Your task to perform on an android device: see sites visited before in the chrome app Image 0: 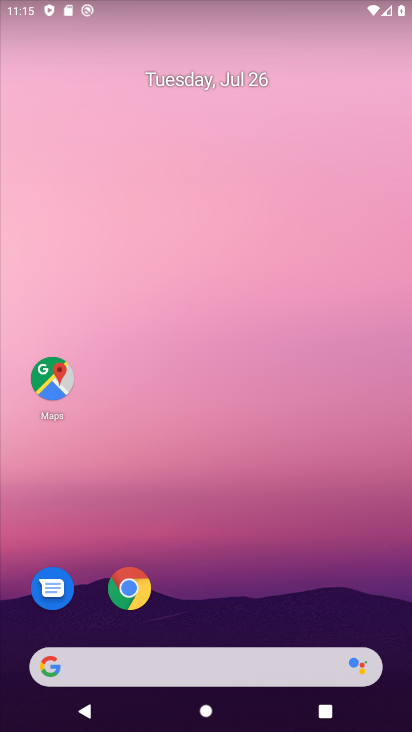
Step 0: click (114, 576)
Your task to perform on an android device: see sites visited before in the chrome app Image 1: 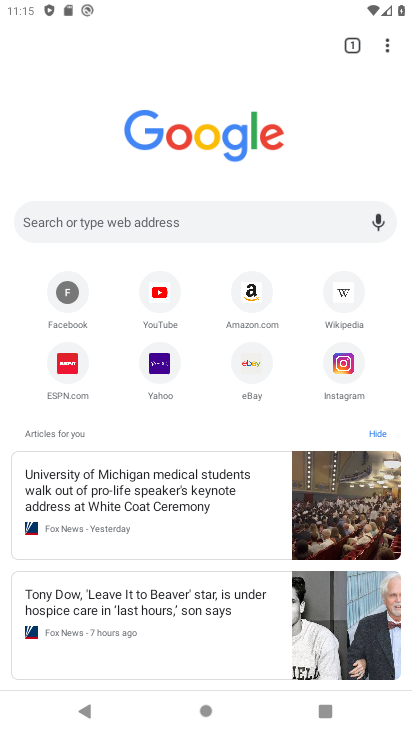
Step 1: click (385, 44)
Your task to perform on an android device: see sites visited before in the chrome app Image 2: 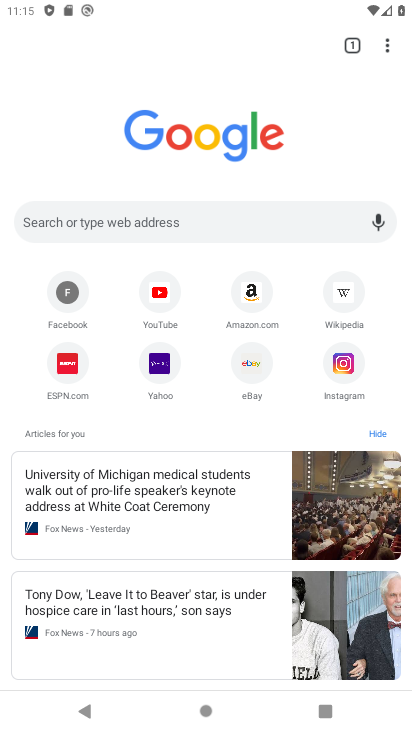
Step 2: click (389, 42)
Your task to perform on an android device: see sites visited before in the chrome app Image 3: 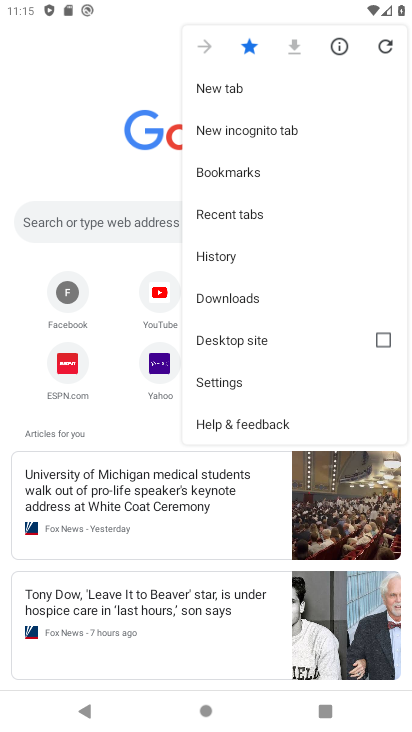
Step 3: click (197, 382)
Your task to perform on an android device: see sites visited before in the chrome app Image 4: 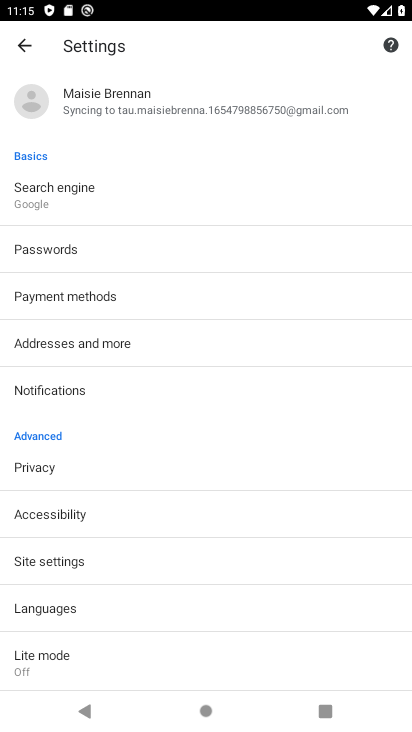
Step 4: click (68, 555)
Your task to perform on an android device: see sites visited before in the chrome app Image 5: 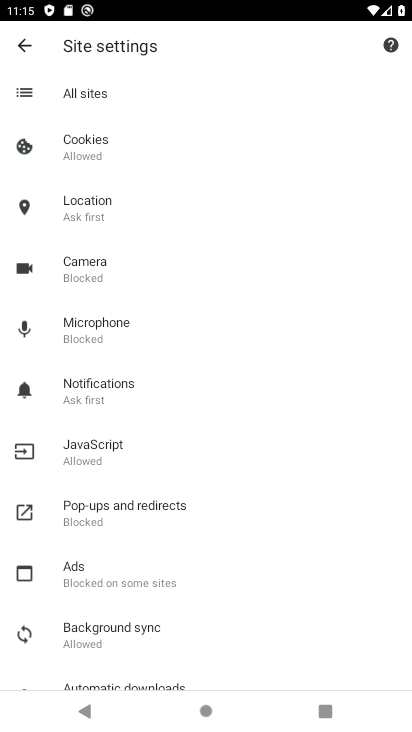
Step 5: task complete